Your task to perform on an android device: open sync settings in chrome Image 0: 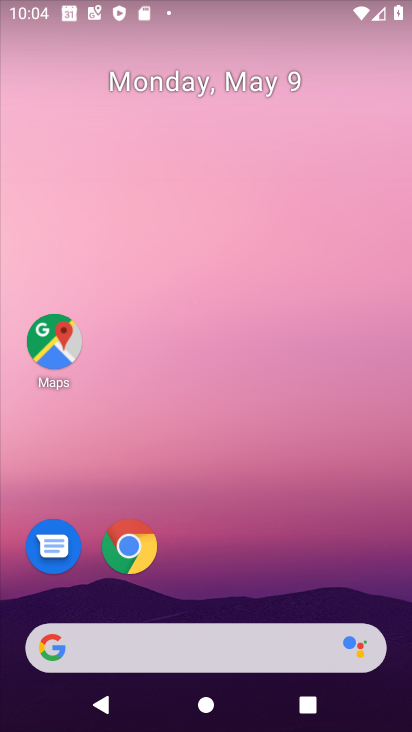
Step 0: click (137, 540)
Your task to perform on an android device: open sync settings in chrome Image 1: 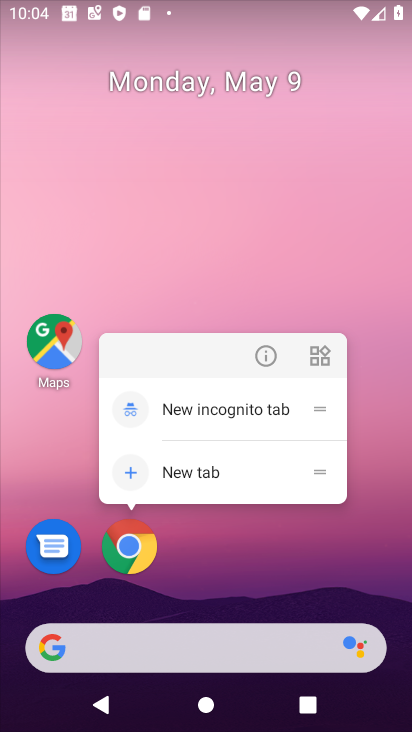
Step 1: click (122, 552)
Your task to perform on an android device: open sync settings in chrome Image 2: 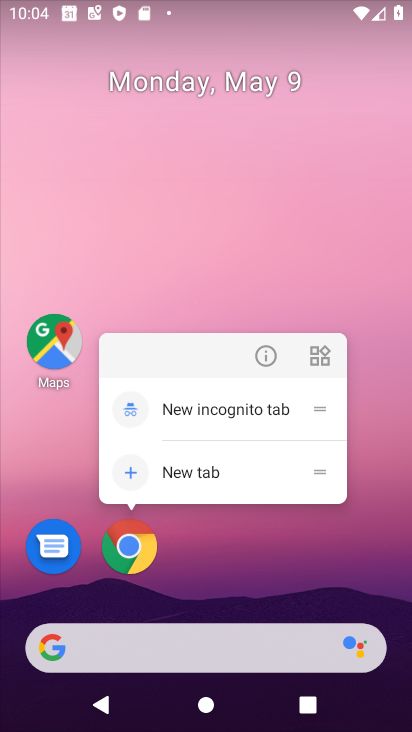
Step 2: click (122, 552)
Your task to perform on an android device: open sync settings in chrome Image 3: 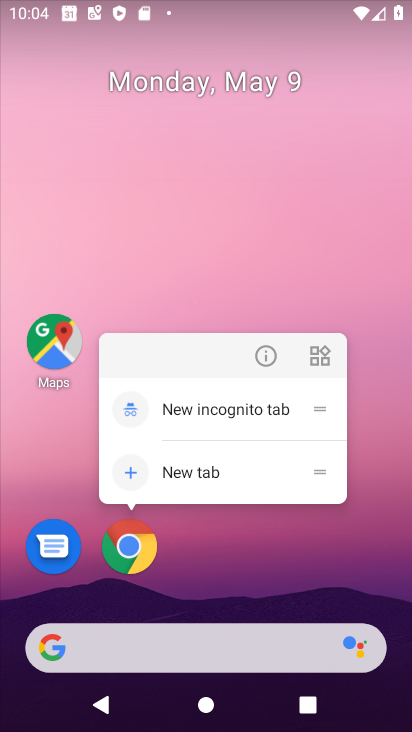
Step 3: click (122, 552)
Your task to perform on an android device: open sync settings in chrome Image 4: 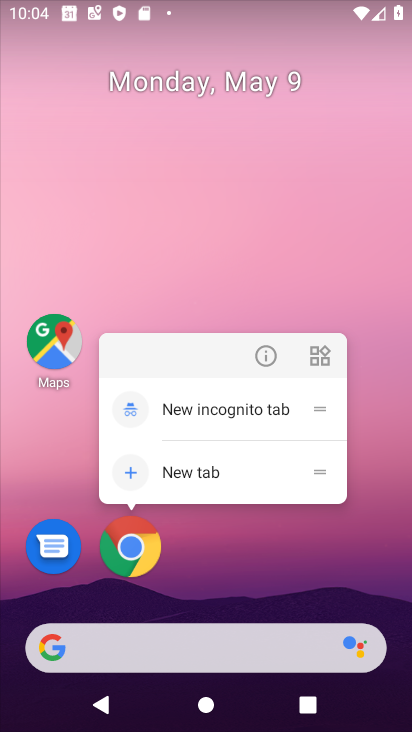
Step 4: click (122, 552)
Your task to perform on an android device: open sync settings in chrome Image 5: 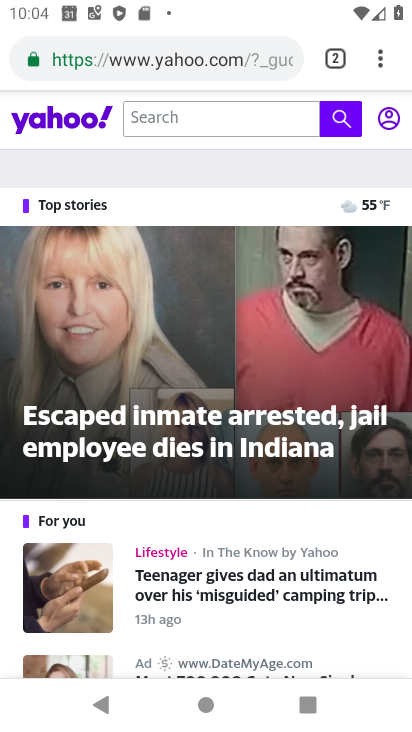
Step 5: click (375, 52)
Your task to perform on an android device: open sync settings in chrome Image 6: 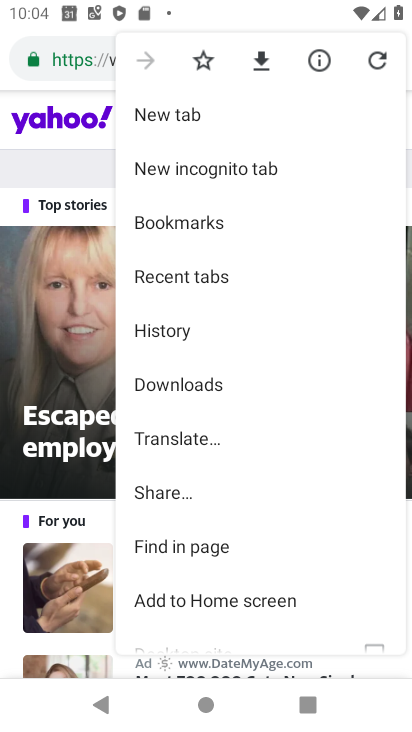
Step 6: drag from (273, 587) to (182, 154)
Your task to perform on an android device: open sync settings in chrome Image 7: 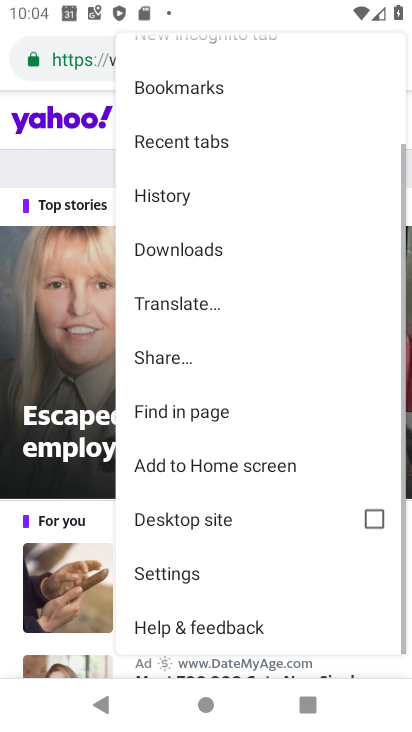
Step 7: click (196, 577)
Your task to perform on an android device: open sync settings in chrome Image 8: 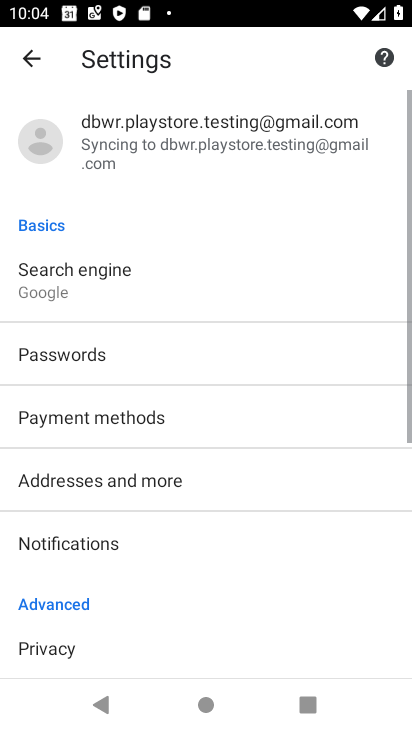
Step 8: click (262, 121)
Your task to perform on an android device: open sync settings in chrome Image 9: 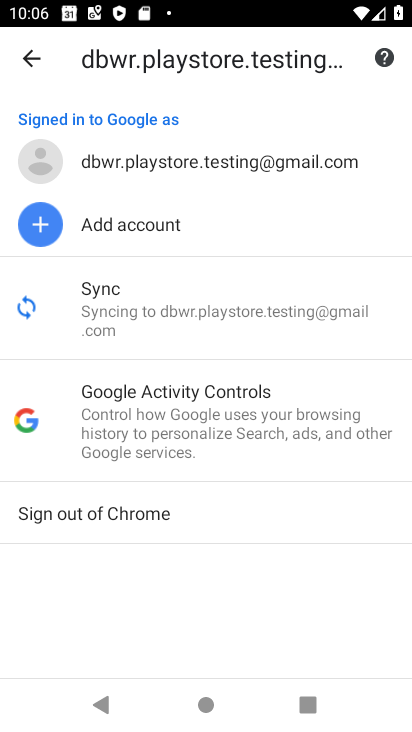
Step 9: click (217, 158)
Your task to perform on an android device: open sync settings in chrome Image 10: 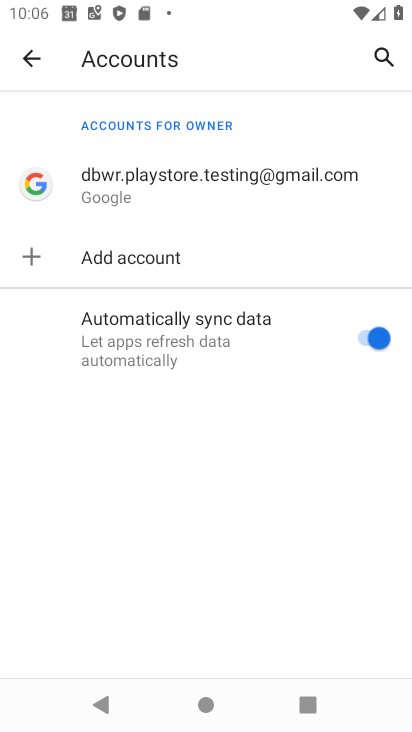
Step 10: task complete